Your task to perform on an android device: check data usage Image 0: 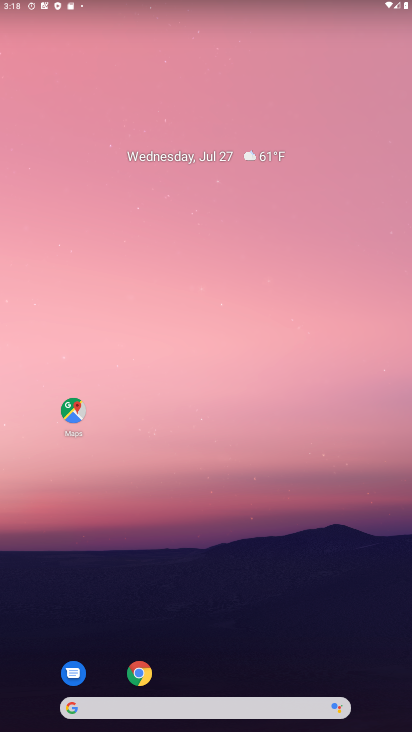
Step 0: drag from (58, 583) to (166, 212)
Your task to perform on an android device: check data usage Image 1: 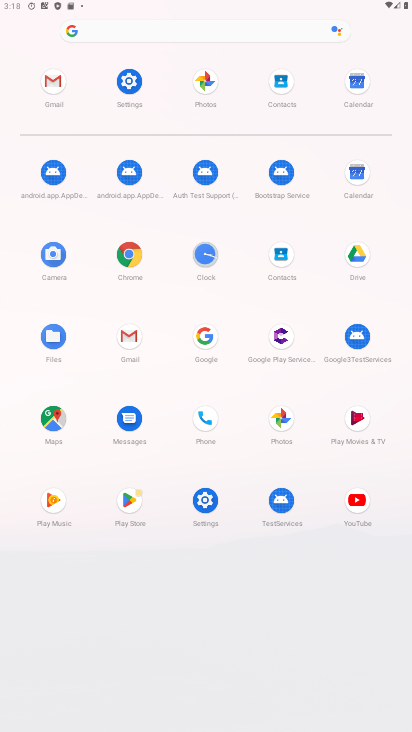
Step 1: click (200, 500)
Your task to perform on an android device: check data usage Image 2: 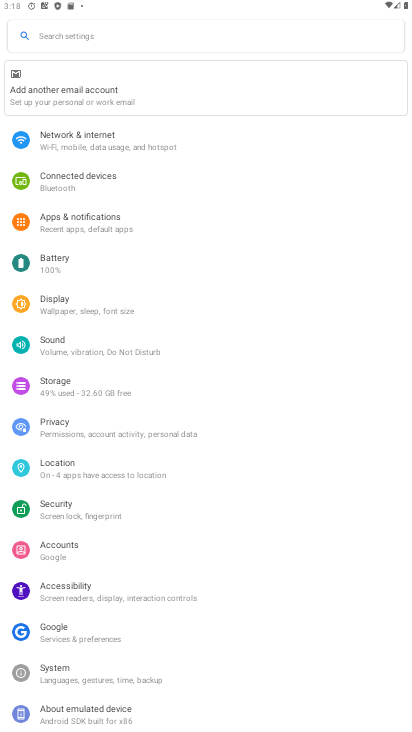
Step 2: click (79, 145)
Your task to perform on an android device: check data usage Image 3: 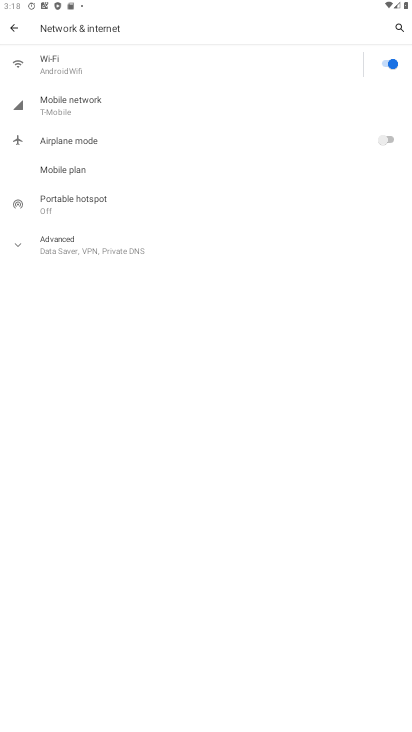
Step 3: click (68, 112)
Your task to perform on an android device: check data usage Image 4: 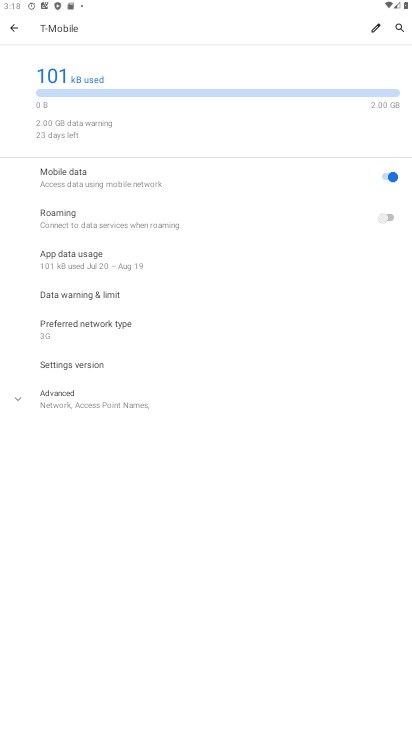
Step 4: task complete